Your task to perform on an android device: Open my contact list Image 0: 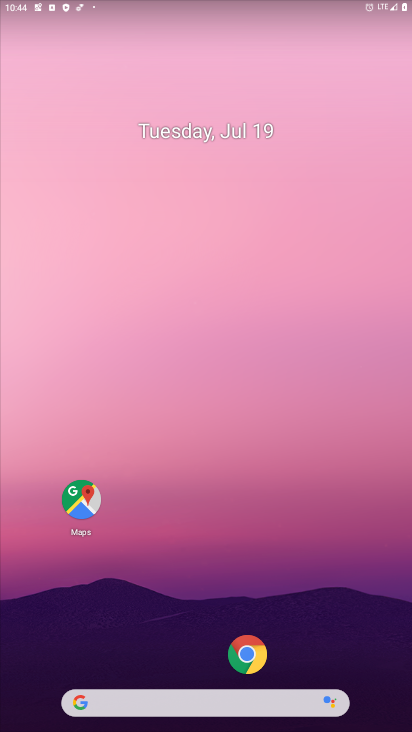
Step 0: drag from (174, 644) to (157, 321)
Your task to perform on an android device: Open my contact list Image 1: 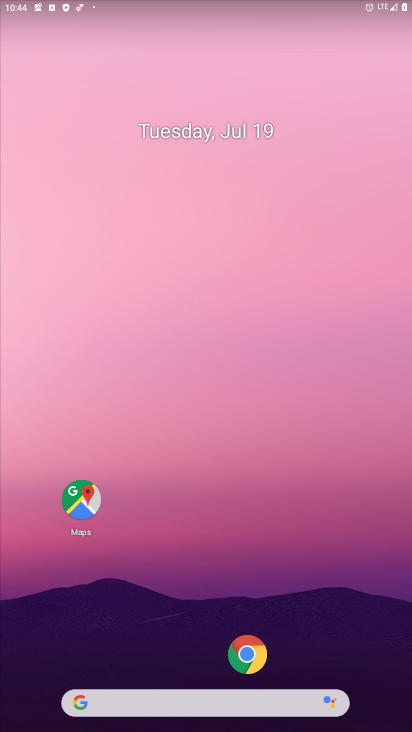
Step 1: drag from (164, 634) to (134, 47)
Your task to perform on an android device: Open my contact list Image 2: 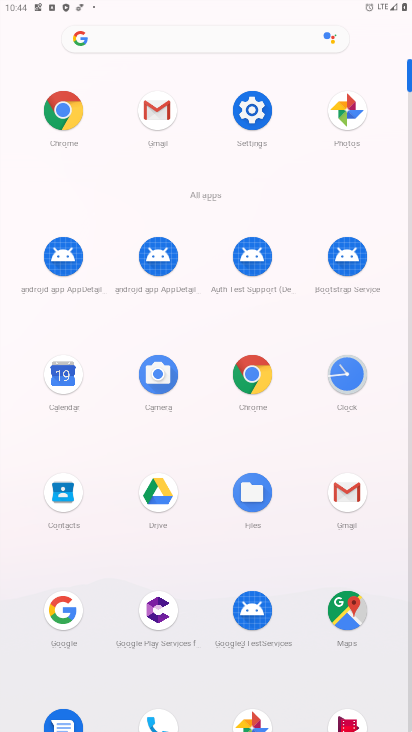
Step 2: click (65, 506)
Your task to perform on an android device: Open my contact list Image 3: 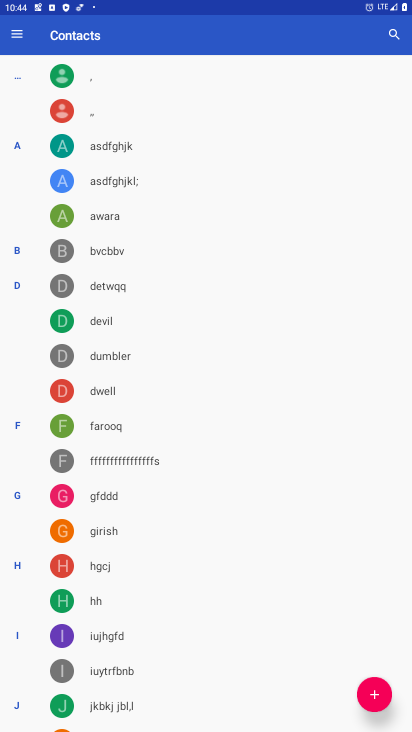
Step 3: task complete